Your task to perform on an android device: choose inbox layout in the gmail app Image 0: 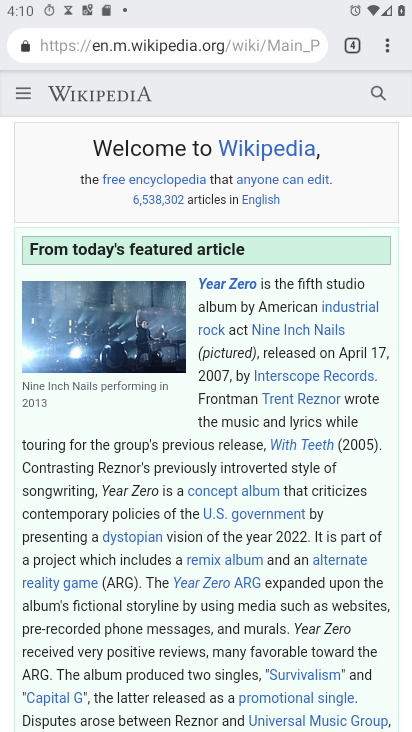
Step 0: press home button
Your task to perform on an android device: choose inbox layout in the gmail app Image 1: 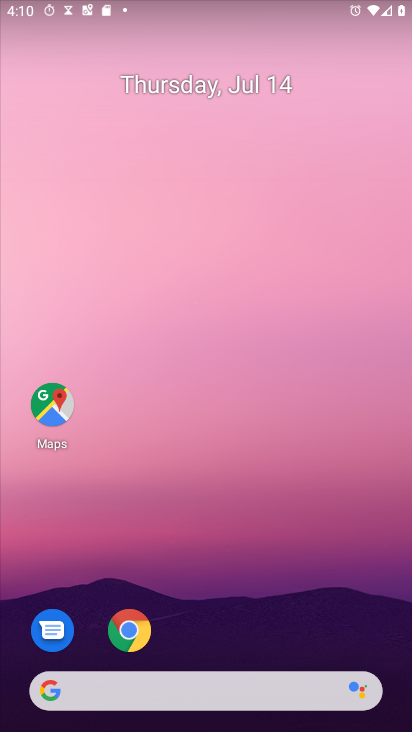
Step 1: drag from (240, 722) to (232, 241)
Your task to perform on an android device: choose inbox layout in the gmail app Image 2: 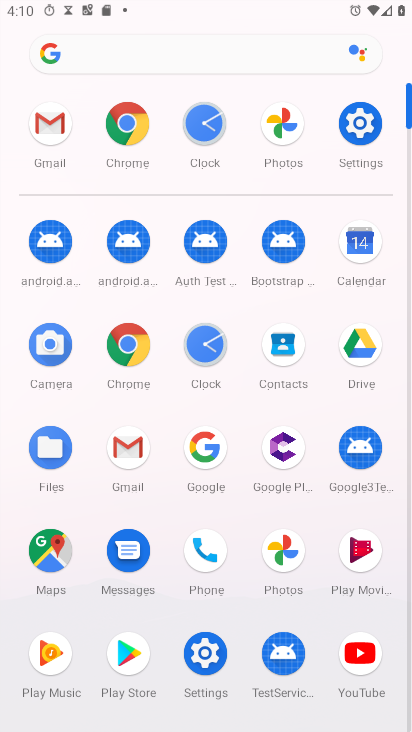
Step 2: click (126, 445)
Your task to perform on an android device: choose inbox layout in the gmail app Image 3: 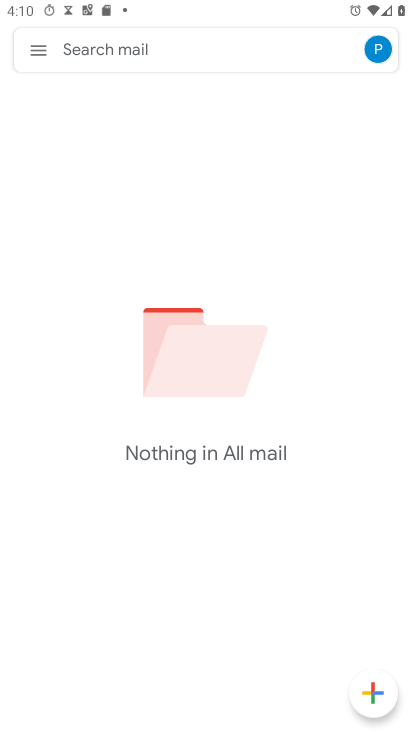
Step 3: click (33, 44)
Your task to perform on an android device: choose inbox layout in the gmail app Image 4: 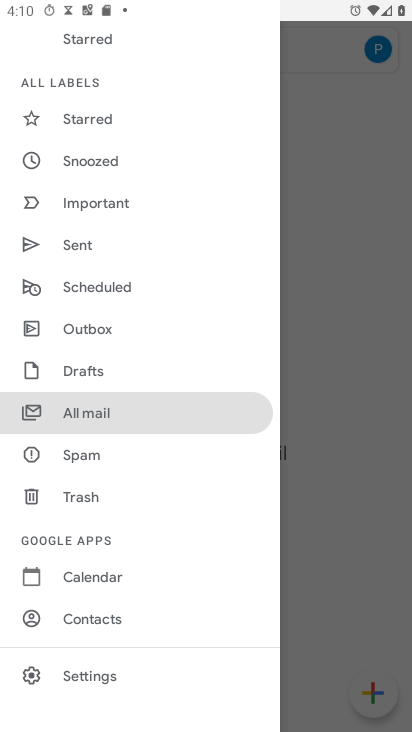
Step 4: click (94, 675)
Your task to perform on an android device: choose inbox layout in the gmail app Image 5: 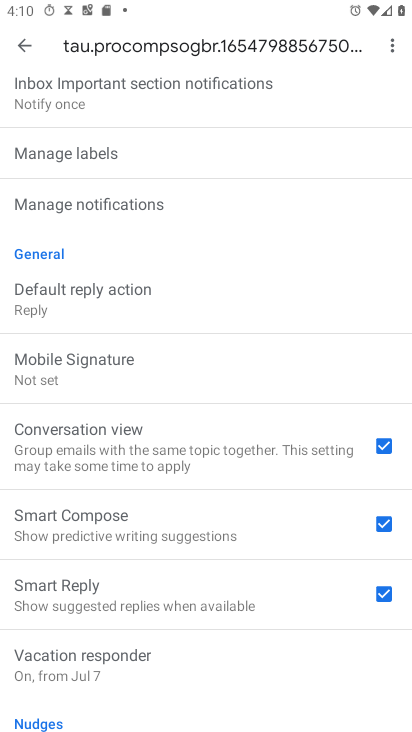
Step 5: drag from (156, 165) to (167, 560)
Your task to perform on an android device: choose inbox layout in the gmail app Image 6: 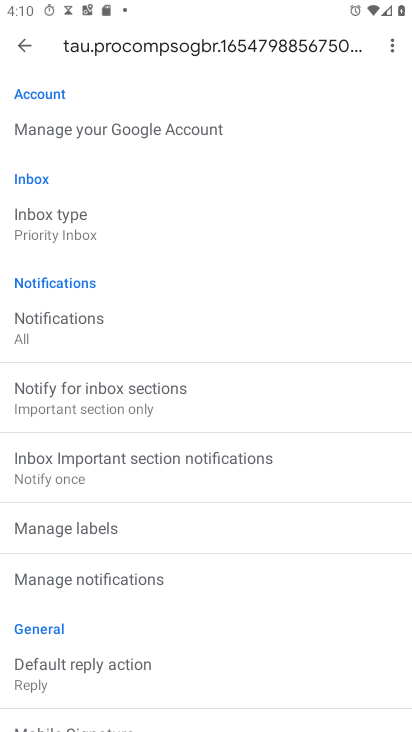
Step 6: drag from (187, 156) to (187, 547)
Your task to perform on an android device: choose inbox layout in the gmail app Image 7: 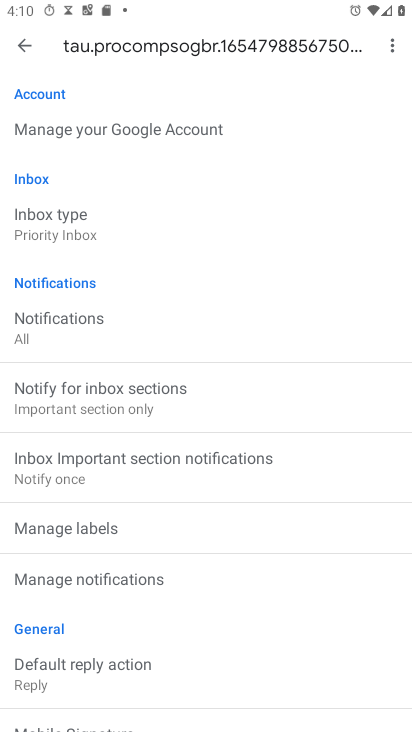
Step 7: click (57, 227)
Your task to perform on an android device: choose inbox layout in the gmail app Image 8: 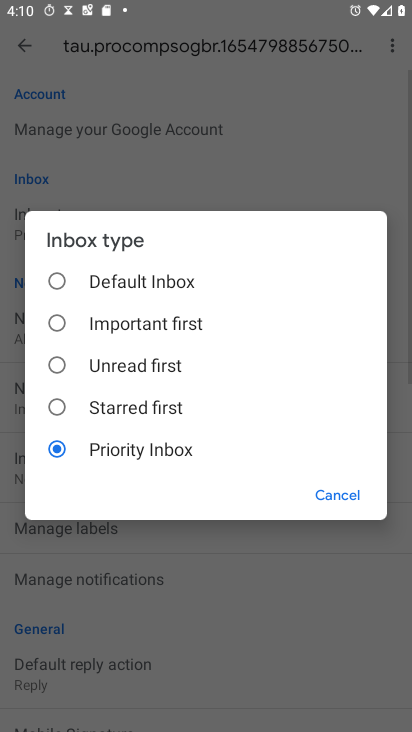
Step 8: click (61, 279)
Your task to perform on an android device: choose inbox layout in the gmail app Image 9: 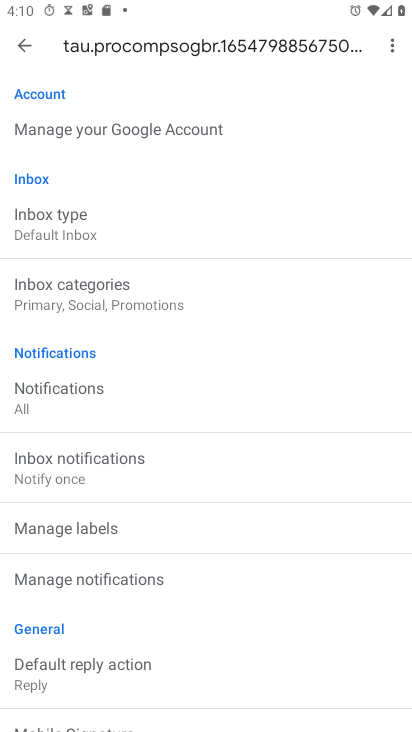
Step 9: task complete